Your task to perform on an android device: See recent photos Image 0: 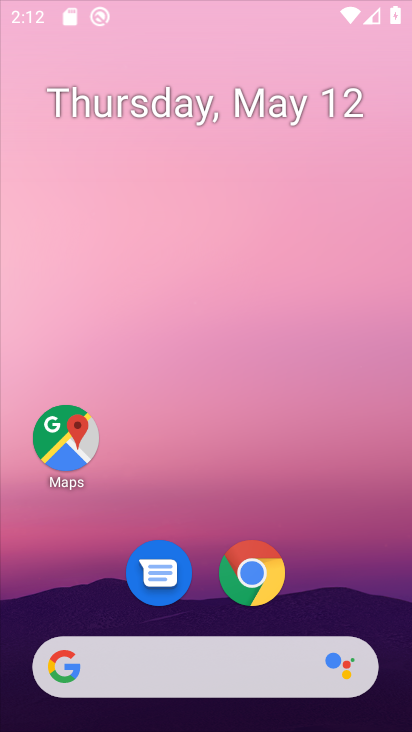
Step 0: click (262, 30)
Your task to perform on an android device: See recent photos Image 1: 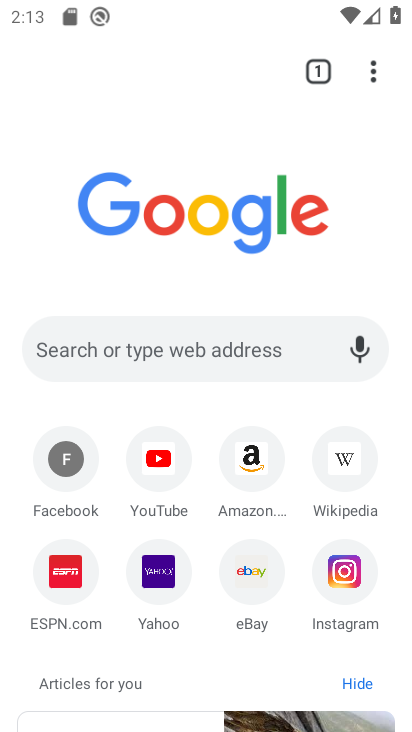
Step 1: press home button
Your task to perform on an android device: See recent photos Image 2: 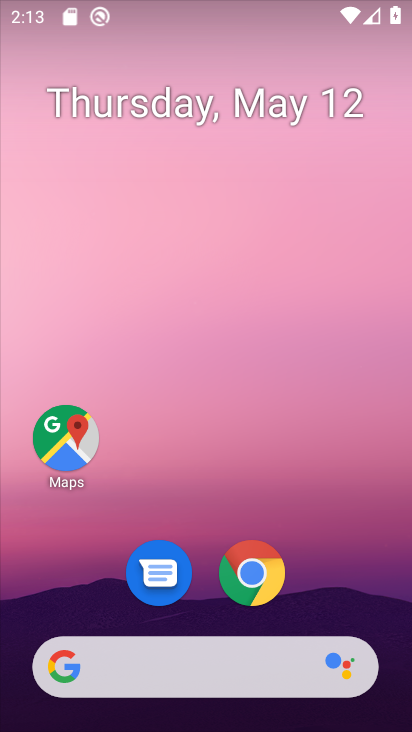
Step 2: drag from (188, 611) to (227, 193)
Your task to perform on an android device: See recent photos Image 3: 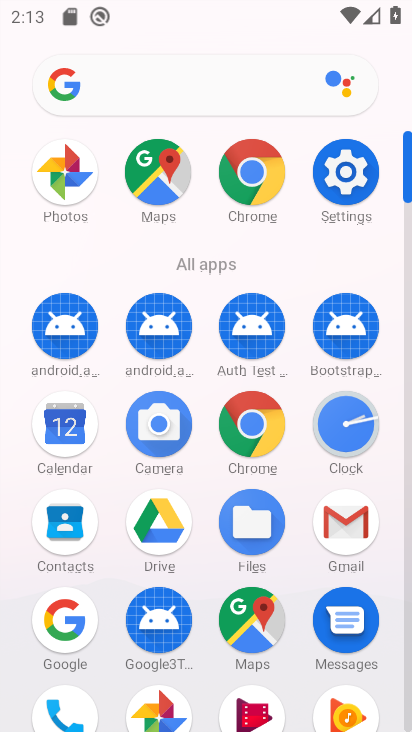
Step 3: click (152, 703)
Your task to perform on an android device: See recent photos Image 4: 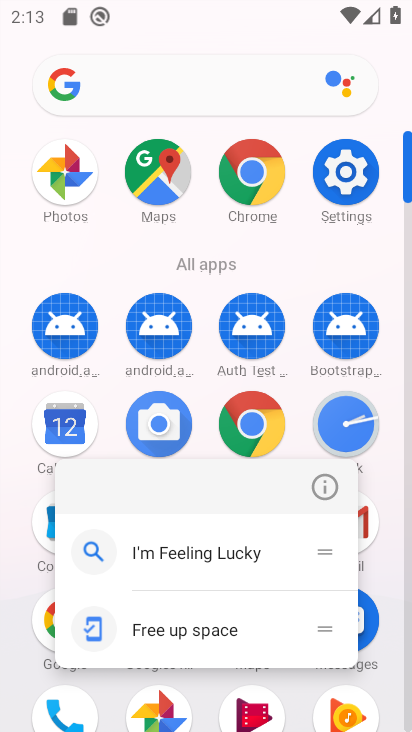
Step 4: click (313, 482)
Your task to perform on an android device: See recent photos Image 5: 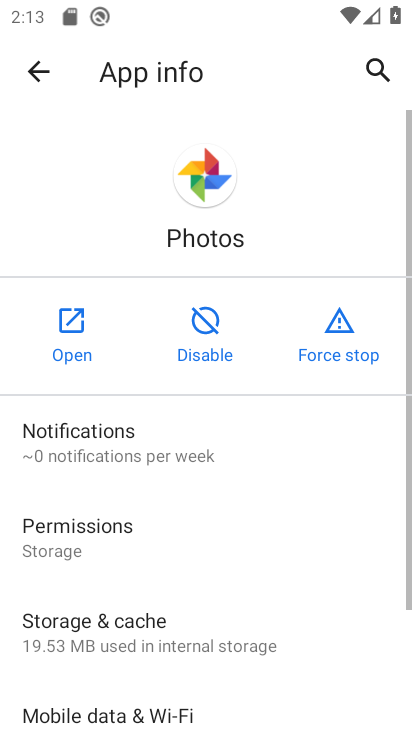
Step 5: click (59, 323)
Your task to perform on an android device: See recent photos Image 6: 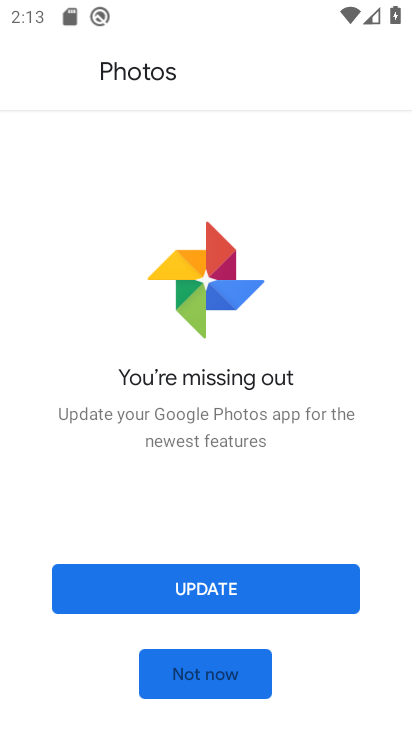
Step 6: click (215, 678)
Your task to perform on an android device: See recent photos Image 7: 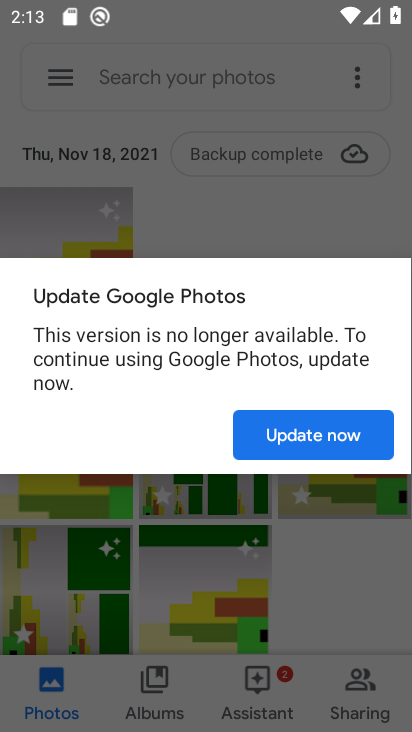
Step 7: click (295, 427)
Your task to perform on an android device: See recent photos Image 8: 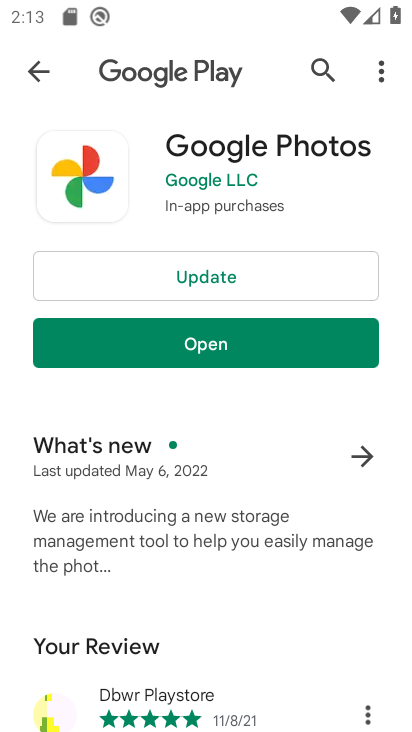
Step 8: click (164, 268)
Your task to perform on an android device: See recent photos Image 9: 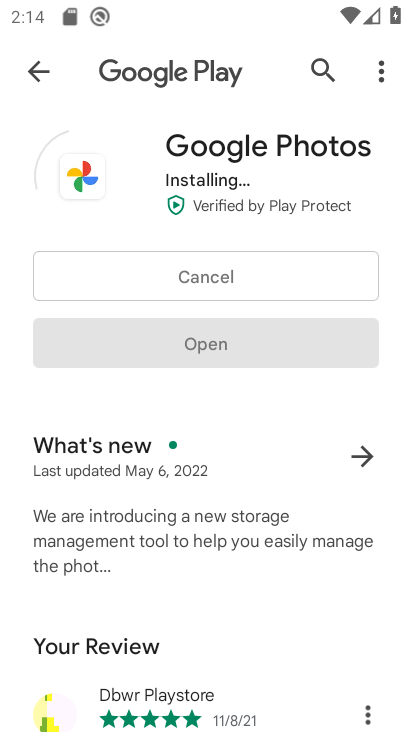
Step 9: task complete